Your task to perform on an android device: change alarm snooze length Image 0: 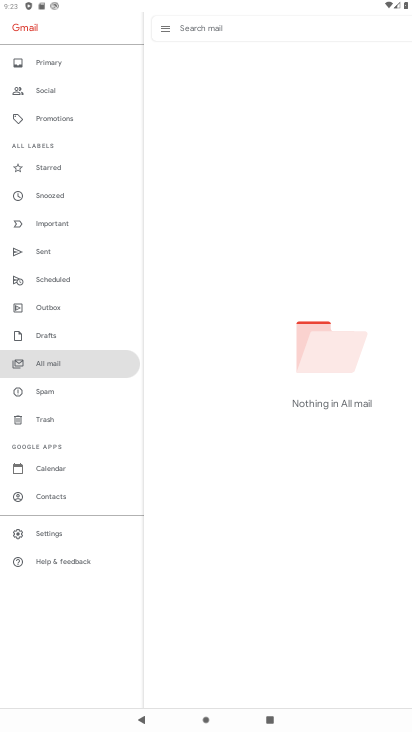
Step 0: press home button
Your task to perform on an android device: change alarm snooze length Image 1: 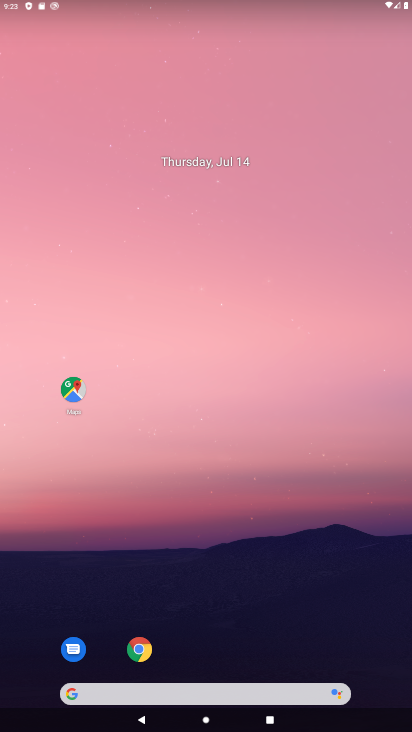
Step 1: drag from (219, 649) to (239, 129)
Your task to perform on an android device: change alarm snooze length Image 2: 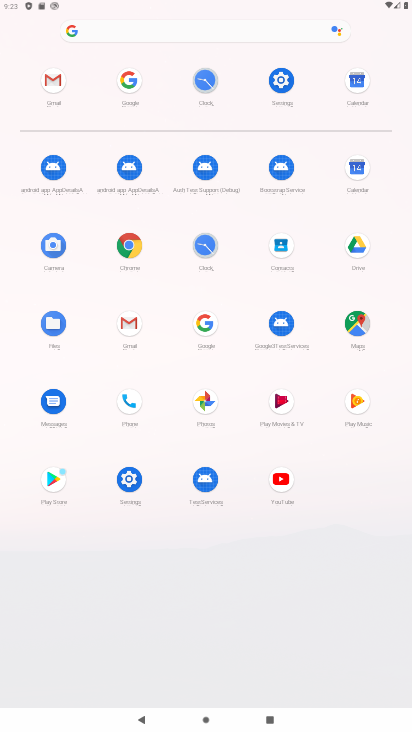
Step 2: click (203, 80)
Your task to perform on an android device: change alarm snooze length Image 3: 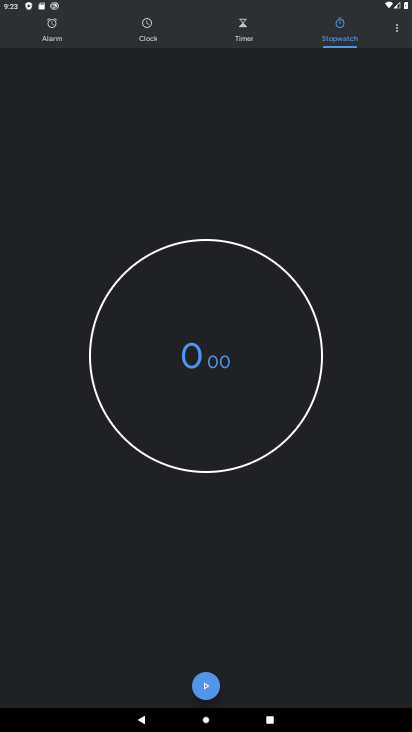
Step 3: click (395, 24)
Your task to perform on an android device: change alarm snooze length Image 4: 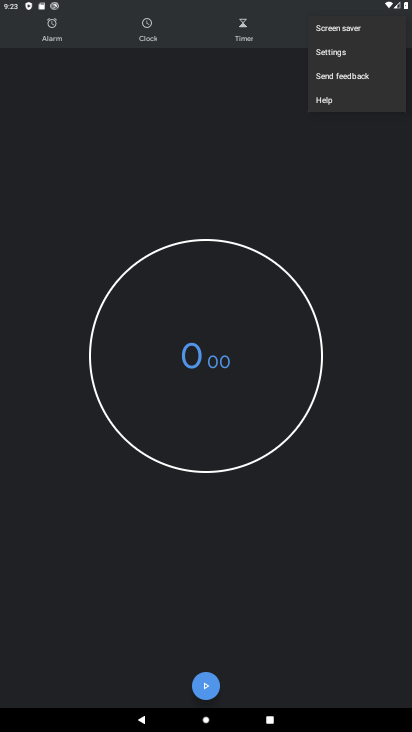
Step 4: click (337, 57)
Your task to perform on an android device: change alarm snooze length Image 5: 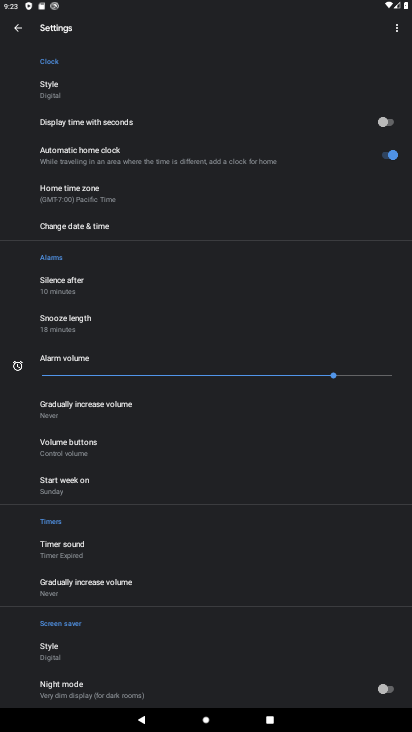
Step 5: click (109, 326)
Your task to perform on an android device: change alarm snooze length Image 6: 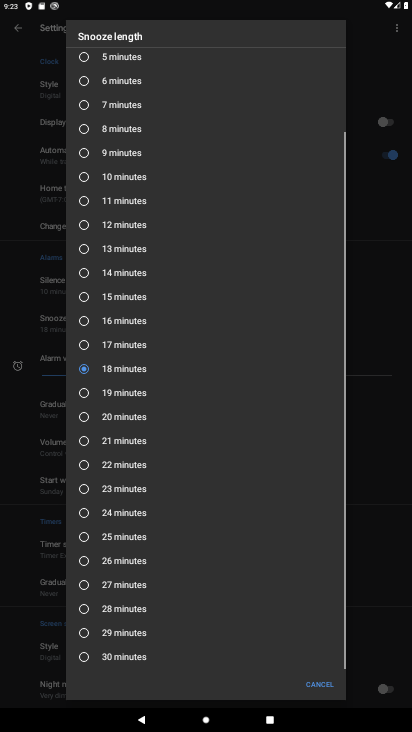
Step 6: click (138, 200)
Your task to perform on an android device: change alarm snooze length Image 7: 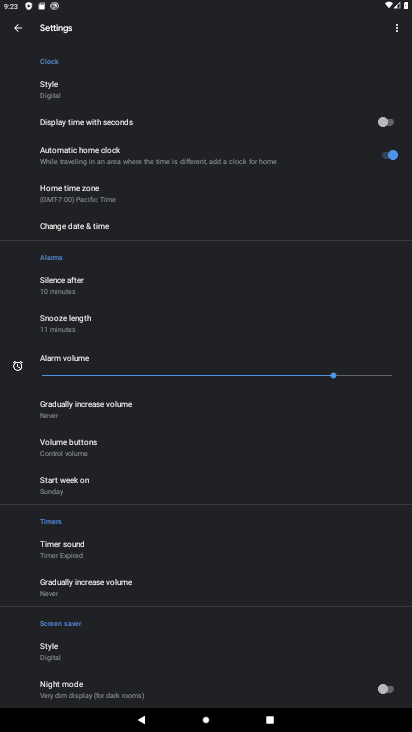
Step 7: task complete